Your task to perform on an android device: find snoozed emails in the gmail app Image 0: 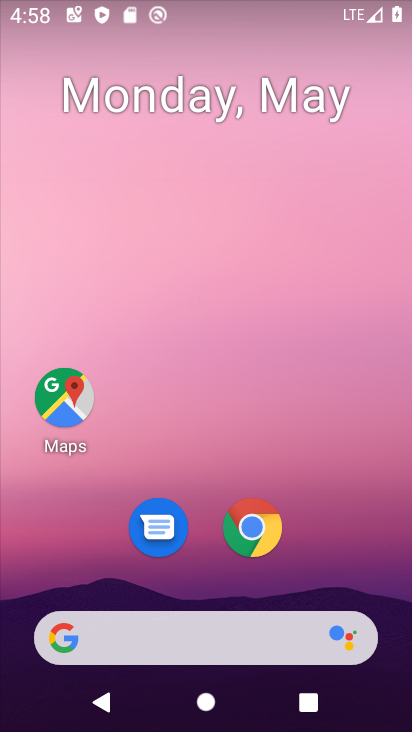
Step 0: drag from (400, 658) to (356, 214)
Your task to perform on an android device: find snoozed emails in the gmail app Image 1: 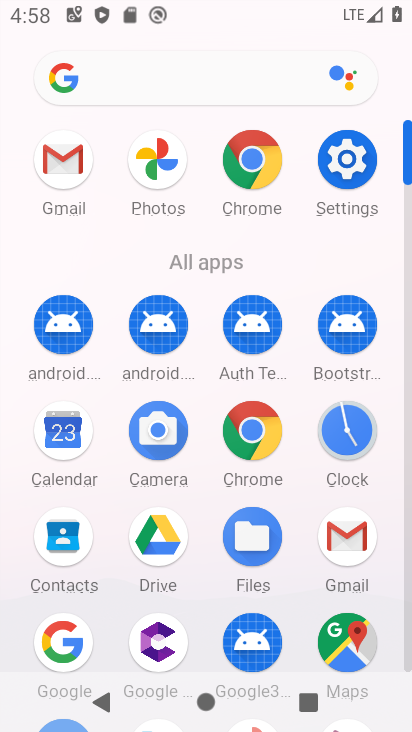
Step 1: click (346, 521)
Your task to perform on an android device: find snoozed emails in the gmail app Image 2: 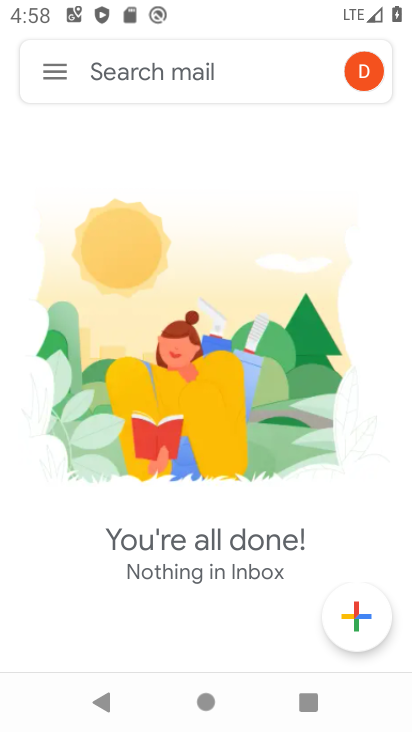
Step 2: click (58, 64)
Your task to perform on an android device: find snoozed emails in the gmail app Image 3: 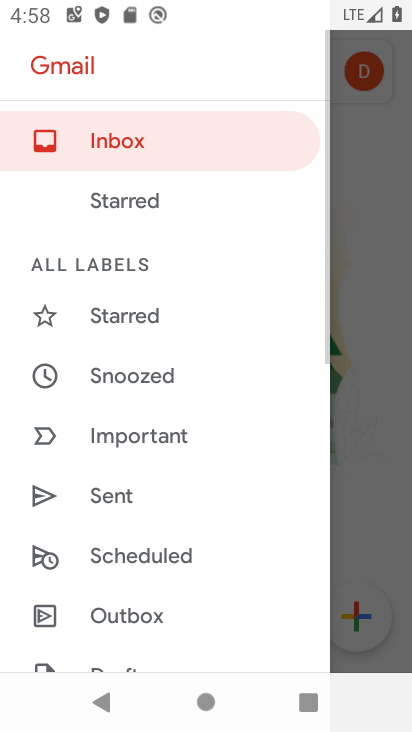
Step 3: click (124, 365)
Your task to perform on an android device: find snoozed emails in the gmail app Image 4: 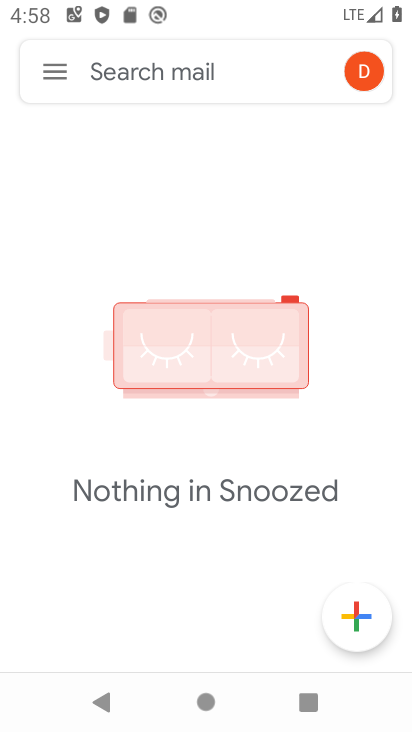
Step 4: task complete